Your task to perform on an android device: refresh tabs in the chrome app Image 0: 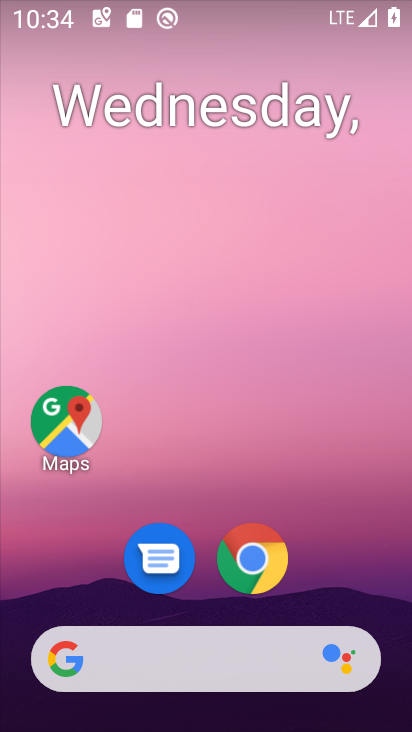
Step 0: click (251, 545)
Your task to perform on an android device: refresh tabs in the chrome app Image 1: 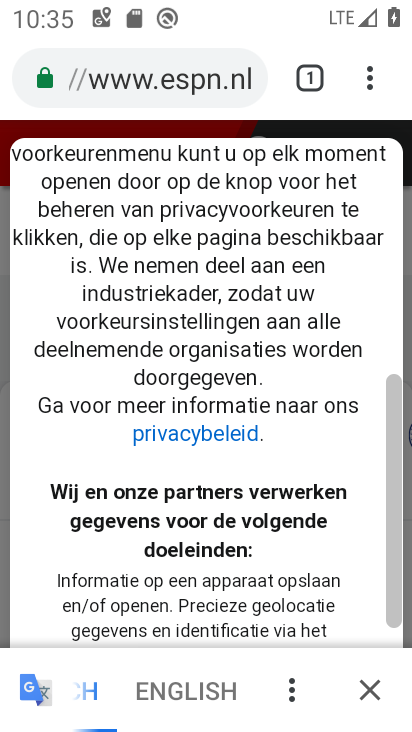
Step 1: click (378, 86)
Your task to perform on an android device: refresh tabs in the chrome app Image 2: 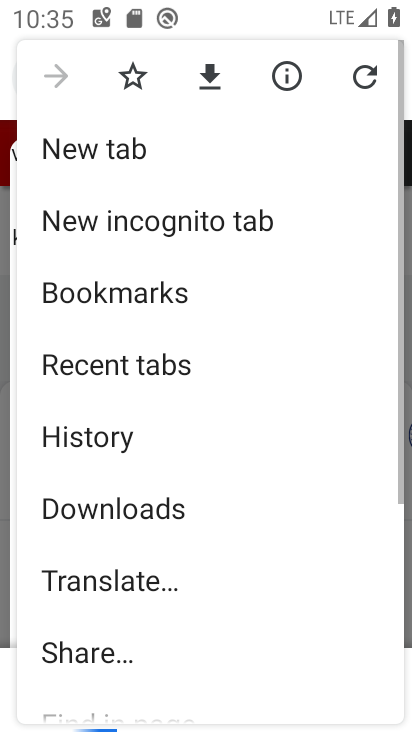
Step 2: click (358, 81)
Your task to perform on an android device: refresh tabs in the chrome app Image 3: 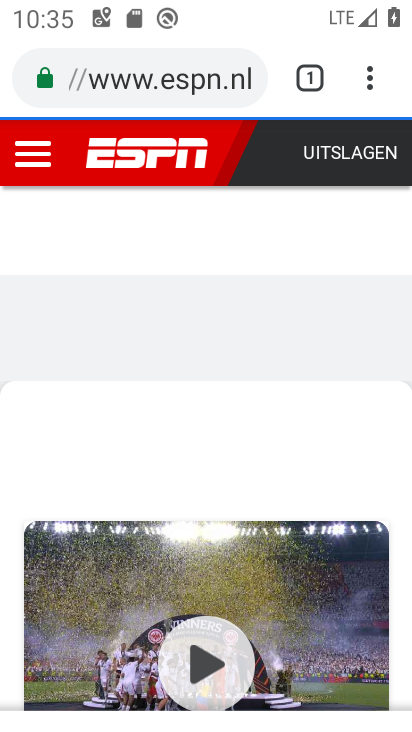
Step 3: task complete